Your task to perform on an android device: Open privacy settings Image 0: 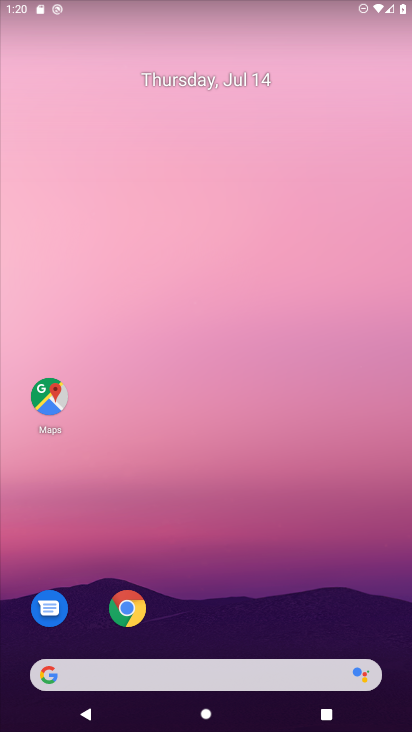
Step 0: drag from (223, 730) to (217, 636)
Your task to perform on an android device: Open privacy settings Image 1: 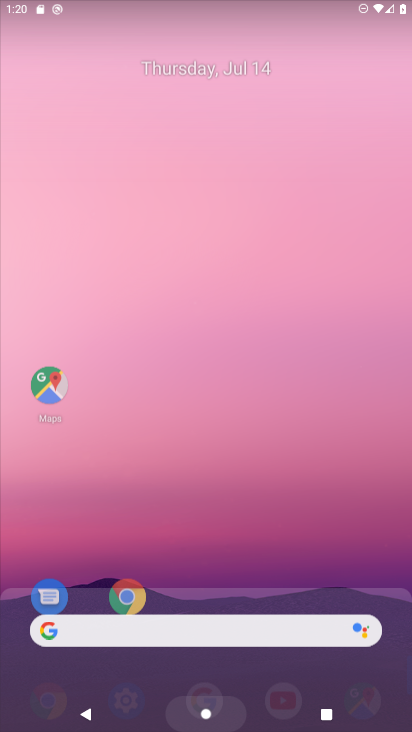
Step 1: drag from (216, 195) to (214, 87)
Your task to perform on an android device: Open privacy settings Image 2: 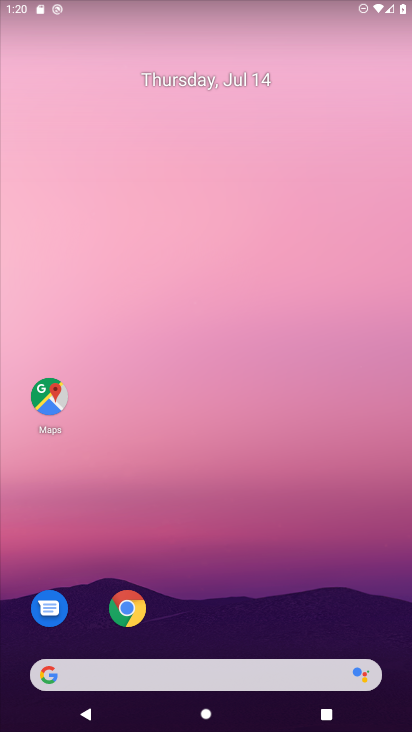
Step 2: drag from (257, 721) to (224, 75)
Your task to perform on an android device: Open privacy settings Image 3: 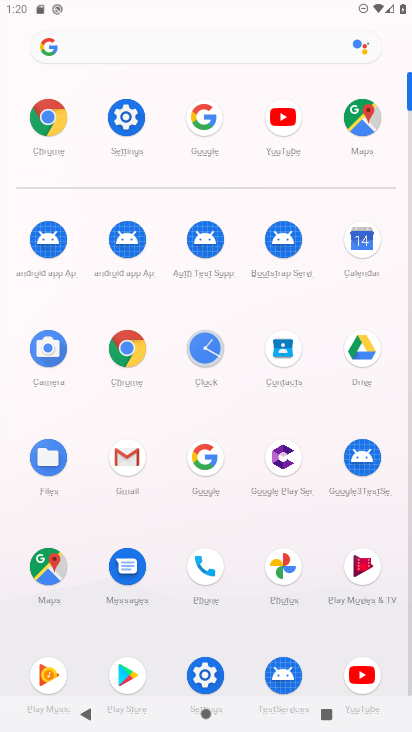
Step 3: click (121, 116)
Your task to perform on an android device: Open privacy settings Image 4: 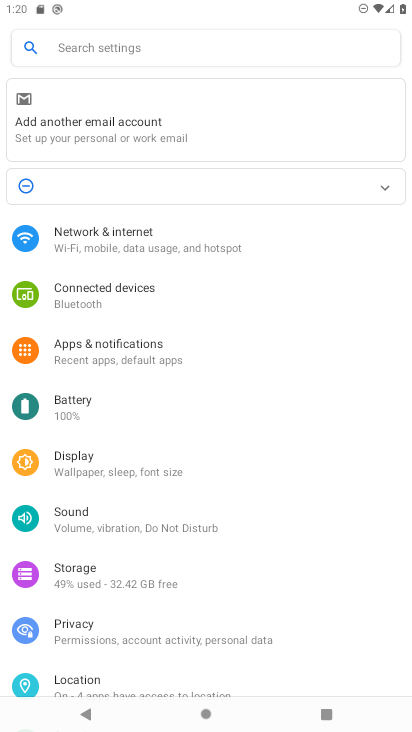
Step 4: click (77, 627)
Your task to perform on an android device: Open privacy settings Image 5: 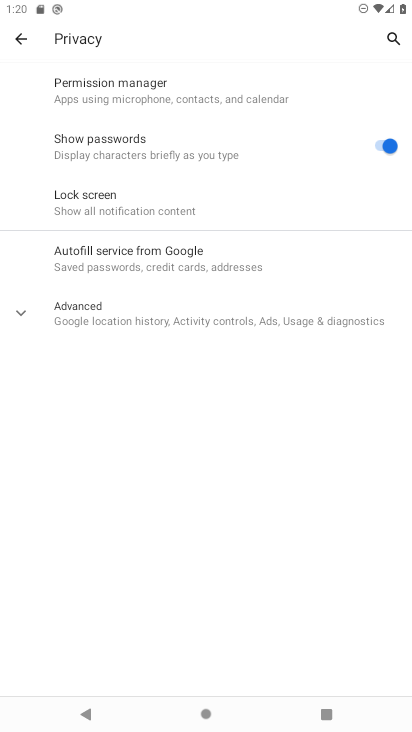
Step 5: task complete